Your task to perform on an android device: change the clock display to show seconds Image 0: 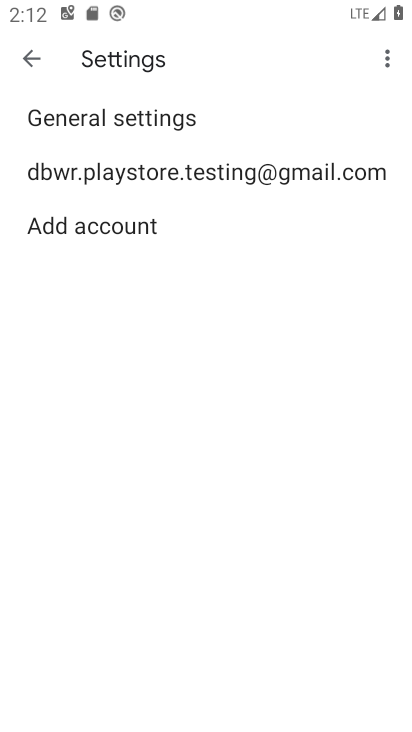
Step 0: press home button
Your task to perform on an android device: change the clock display to show seconds Image 1: 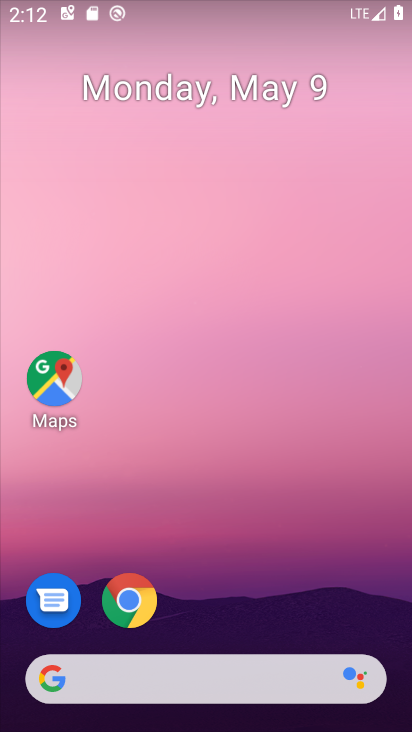
Step 1: drag from (290, 579) to (286, 34)
Your task to perform on an android device: change the clock display to show seconds Image 2: 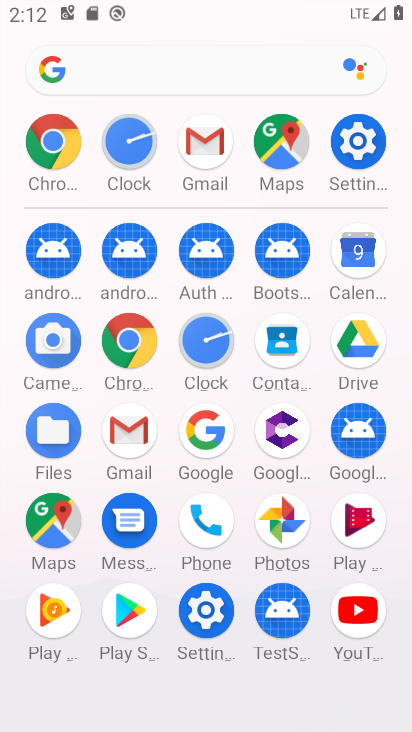
Step 2: click (208, 351)
Your task to perform on an android device: change the clock display to show seconds Image 3: 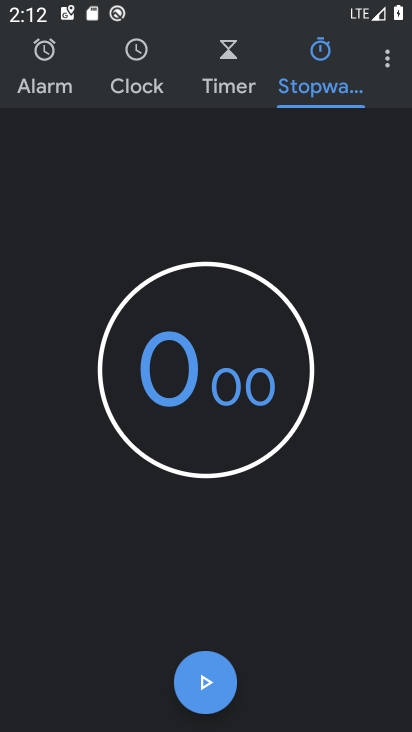
Step 3: click (392, 62)
Your task to perform on an android device: change the clock display to show seconds Image 4: 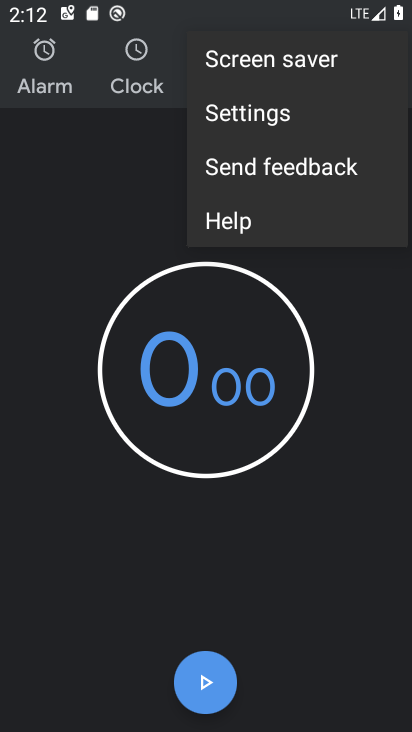
Step 4: click (368, 114)
Your task to perform on an android device: change the clock display to show seconds Image 5: 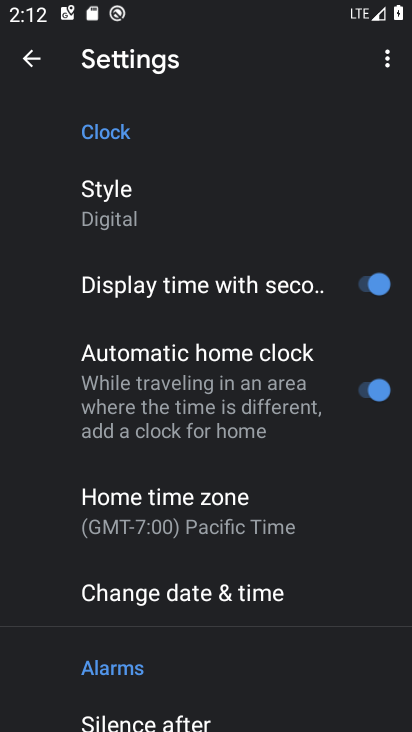
Step 5: task complete